Your task to perform on an android device: Turn on the flashlight Image 0: 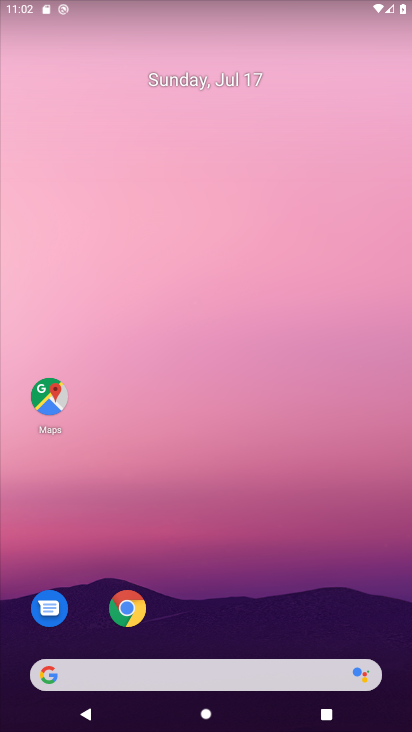
Step 0: drag from (291, 538) to (286, 86)
Your task to perform on an android device: Turn on the flashlight Image 1: 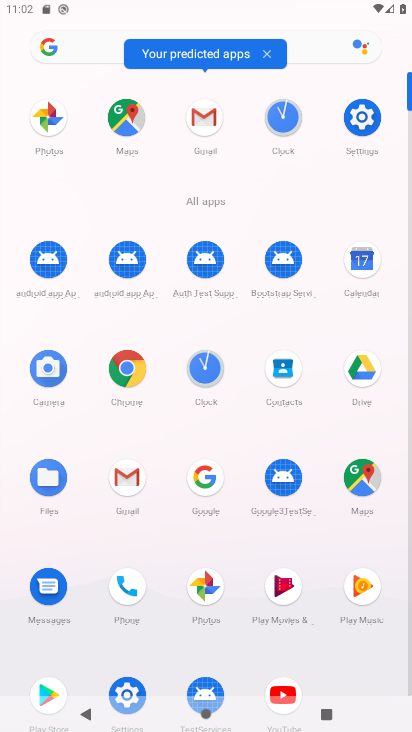
Step 1: click (356, 112)
Your task to perform on an android device: Turn on the flashlight Image 2: 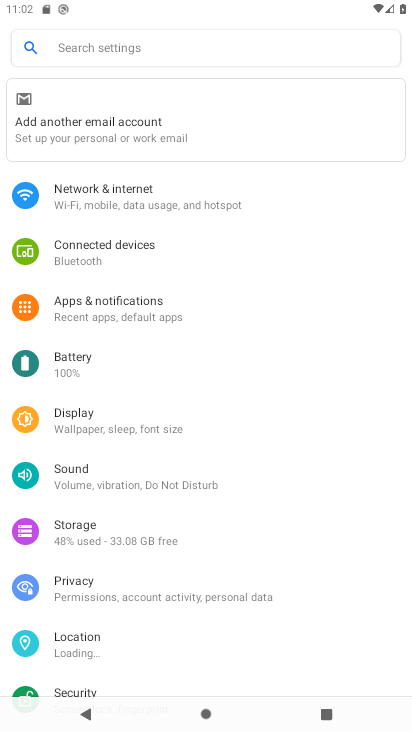
Step 2: task complete